Your task to perform on an android device: Open Youtube and go to the subscriptions tab Image 0: 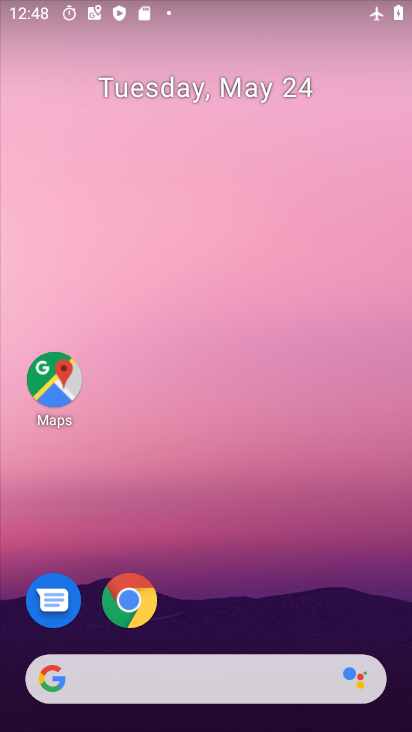
Step 0: drag from (258, 595) to (251, 162)
Your task to perform on an android device: Open Youtube and go to the subscriptions tab Image 1: 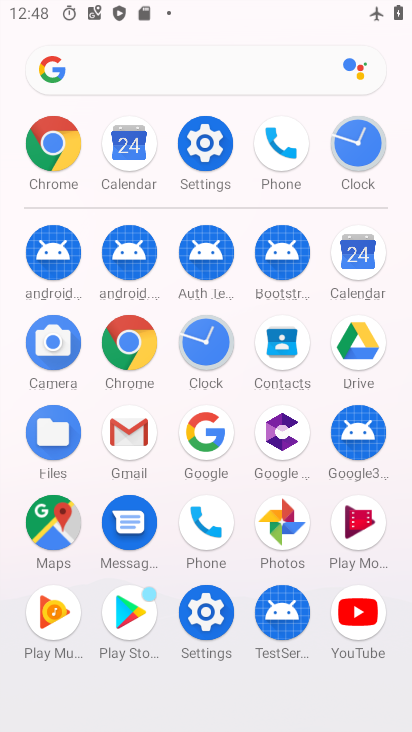
Step 1: click (364, 627)
Your task to perform on an android device: Open Youtube and go to the subscriptions tab Image 2: 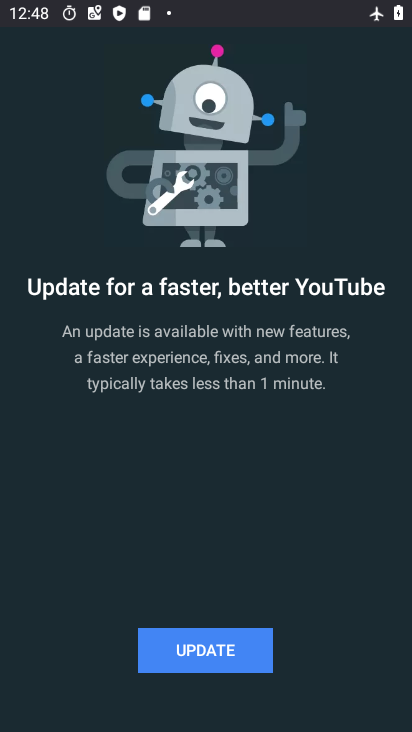
Step 2: task complete